Your task to perform on an android device: Open settings on Google Maps Image 0: 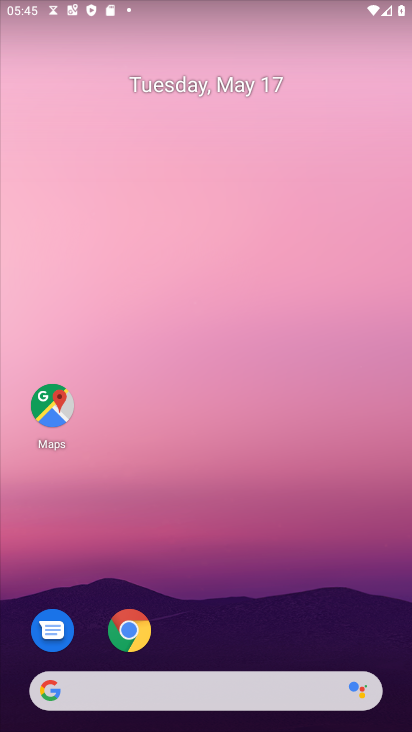
Step 0: click (55, 398)
Your task to perform on an android device: Open settings on Google Maps Image 1: 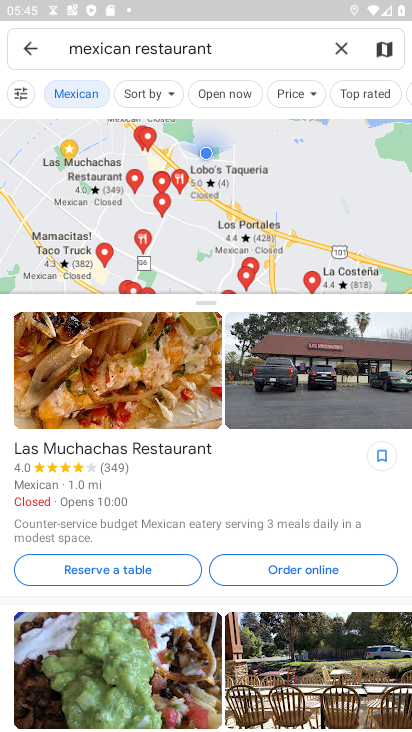
Step 1: click (26, 53)
Your task to perform on an android device: Open settings on Google Maps Image 2: 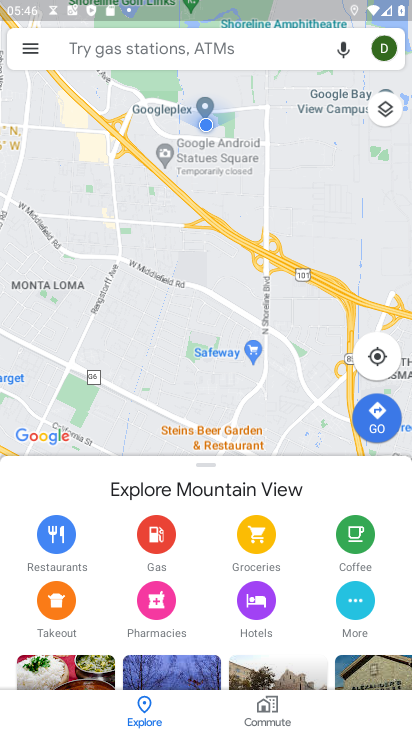
Step 2: click (31, 53)
Your task to perform on an android device: Open settings on Google Maps Image 3: 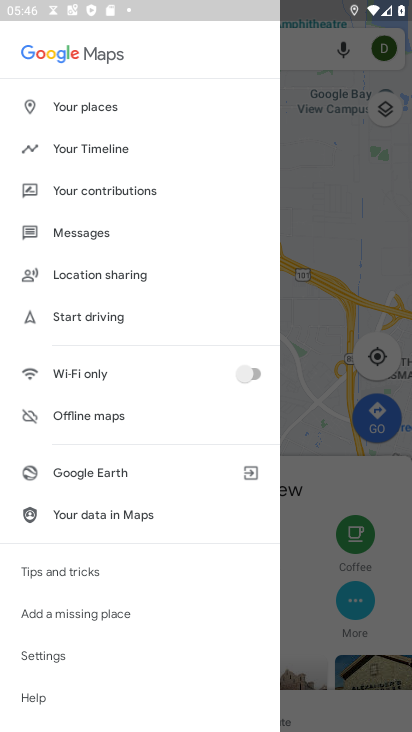
Step 3: click (39, 656)
Your task to perform on an android device: Open settings on Google Maps Image 4: 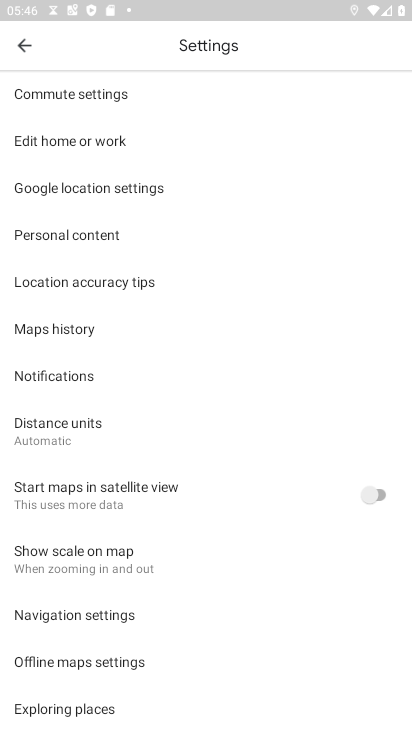
Step 4: task complete